Your task to perform on an android device: Show me popular games on the Play Store Image 0: 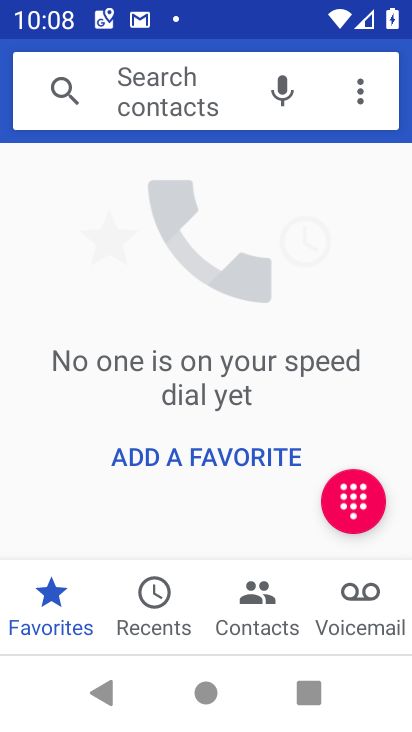
Step 0: press home button
Your task to perform on an android device: Show me popular games on the Play Store Image 1: 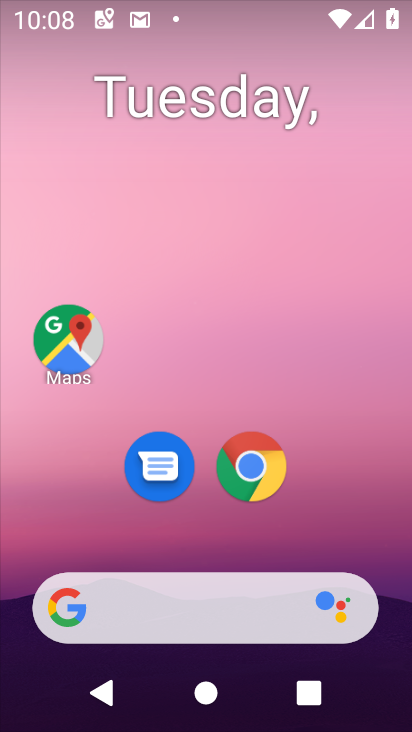
Step 1: drag from (287, 629) to (259, 254)
Your task to perform on an android device: Show me popular games on the Play Store Image 2: 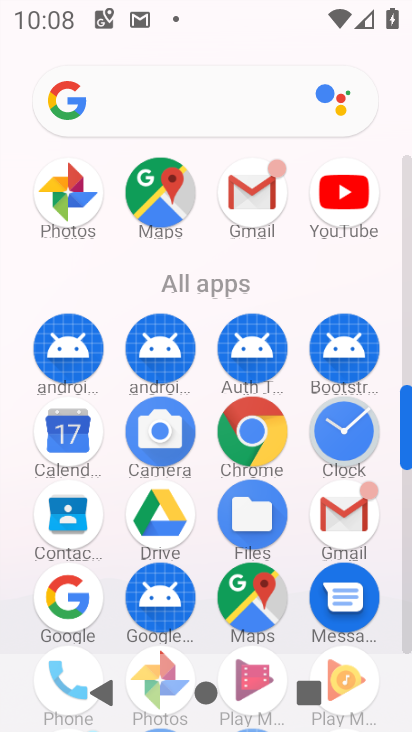
Step 2: click (242, 221)
Your task to perform on an android device: Show me popular games on the Play Store Image 3: 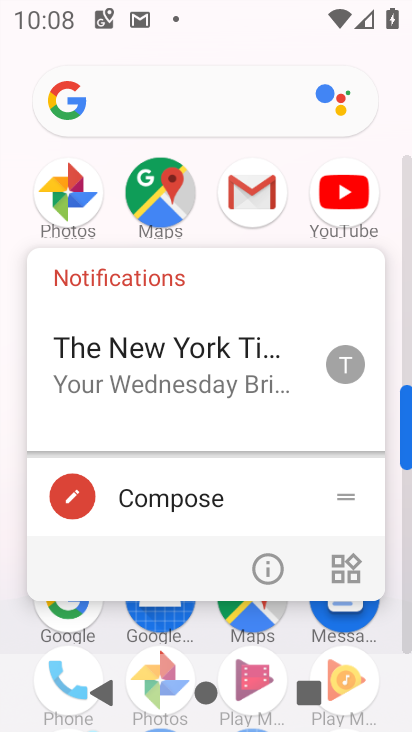
Step 3: press home button
Your task to perform on an android device: Show me popular games on the Play Store Image 4: 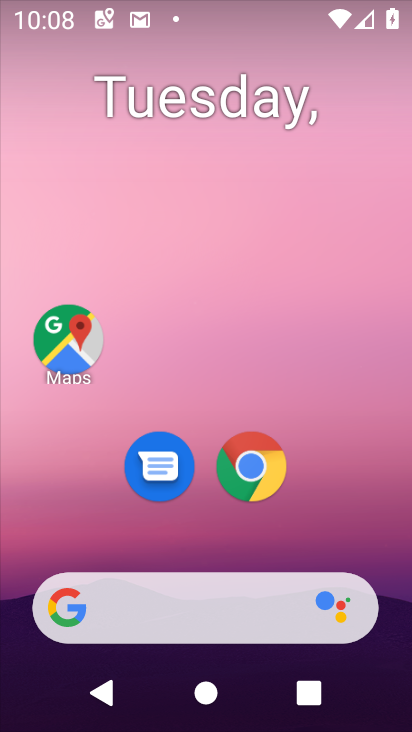
Step 4: drag from (245, 651) to (270, 117)
Your task to perform on an android device: Show me popular games on the Play Store Image 5: 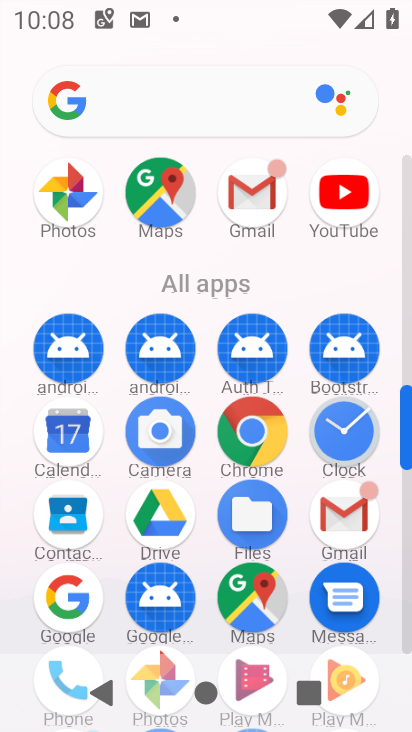
Step 5: drag from (118, 552) to (167, 387)
Your task to perform on an android device: Show me popular games on the Play Store Image 6: 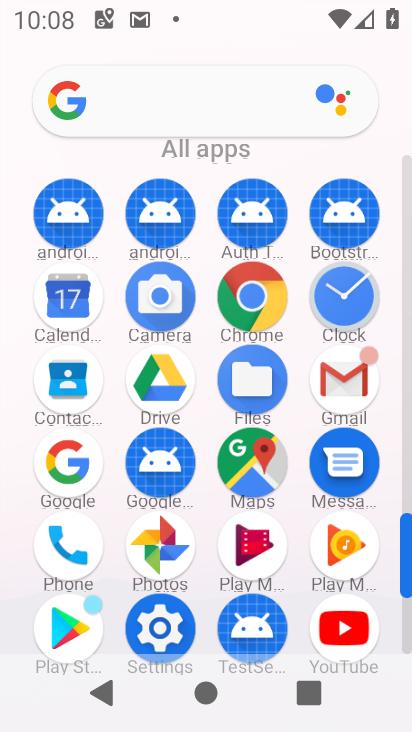
Step 6: click (88, 612)
Your task to perform on an android device: Show me popular games on the Play Store Image 7: 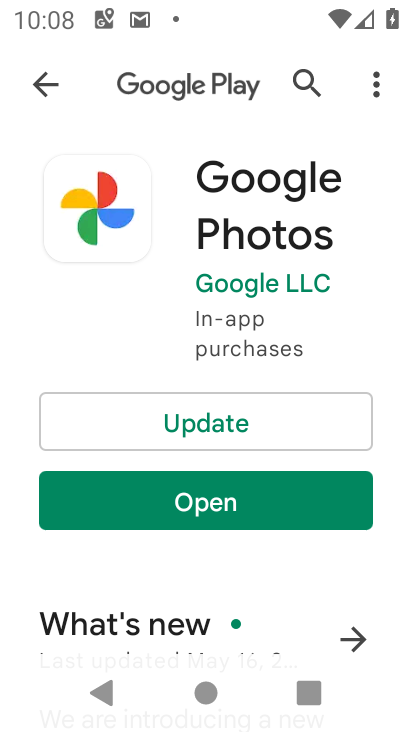
Step 7: click (315, 88)
Your task to perform on an android device: Show me popular games on the Play Store Image 8: 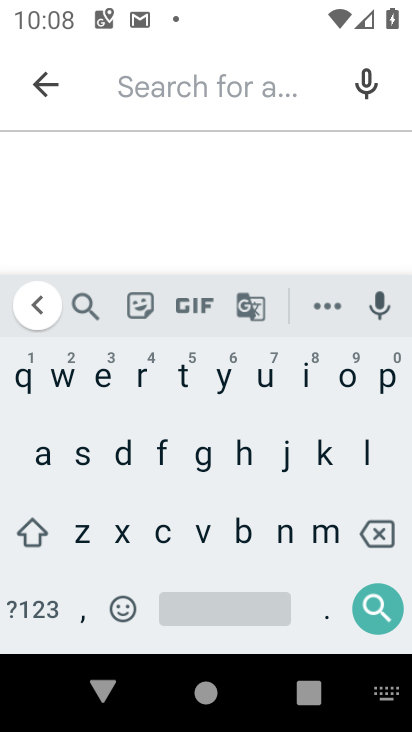
Step 8: click (380, 383)
Your task to perform on an android device: Show me popular games on the Play Store Image 9: 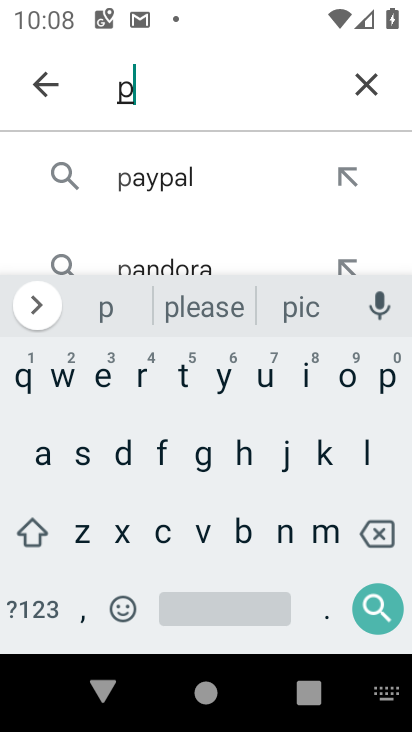
Step 9: click (344, 375)
Your task to perform on an android device: Show me popular games on the Play Store Image 10: 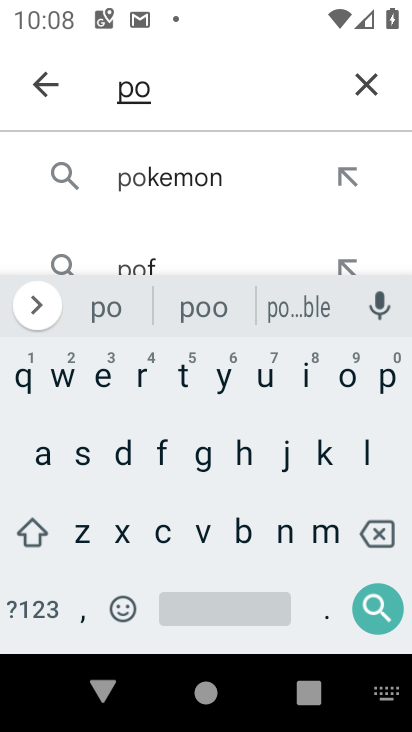
Step 10: click (388, 381)
Your task to perform on an android device: Show me popular games on the Play Store Image 11: 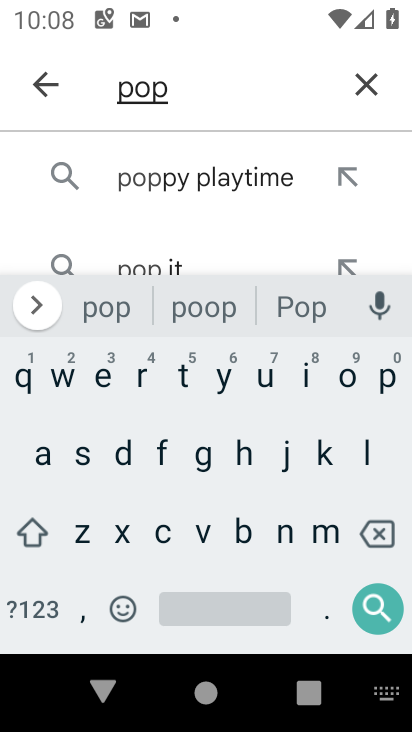
Step 11: click (261, 372)
Your task to perform on an android device: Show me popular games on the Play Store Image 12: 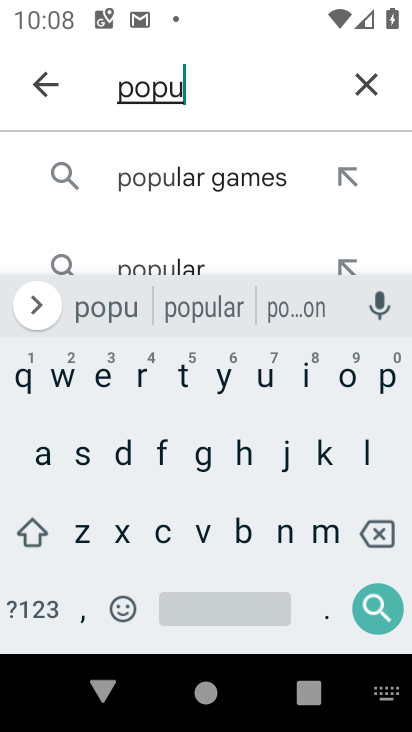
Step 12: click (217, 307)
Your task to perform on an android device: Show me popular games on the Play Store Image 13: 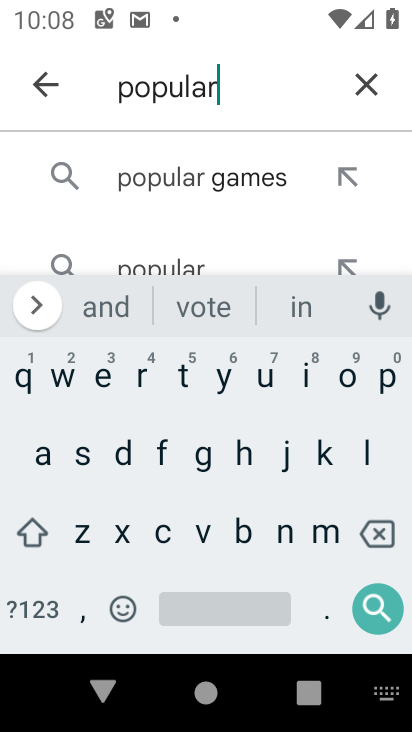
Step 13: click (230, 188)
Your task to perform on an android device: Show me popular games on the Play Store Image 14: 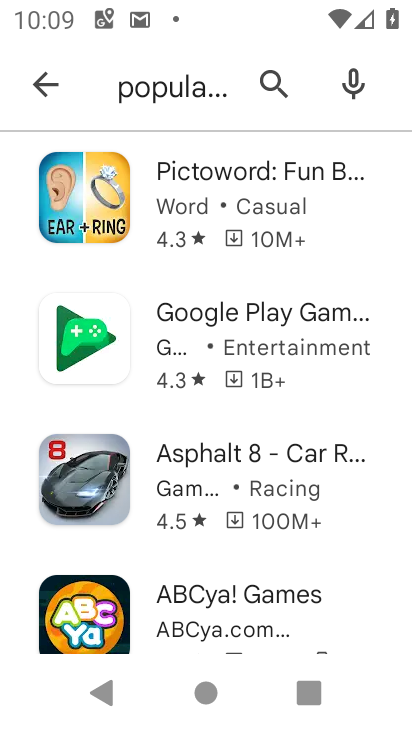
Step 14: task complete